Your task to perform on an android device: Go to accessibility settings Image 0: 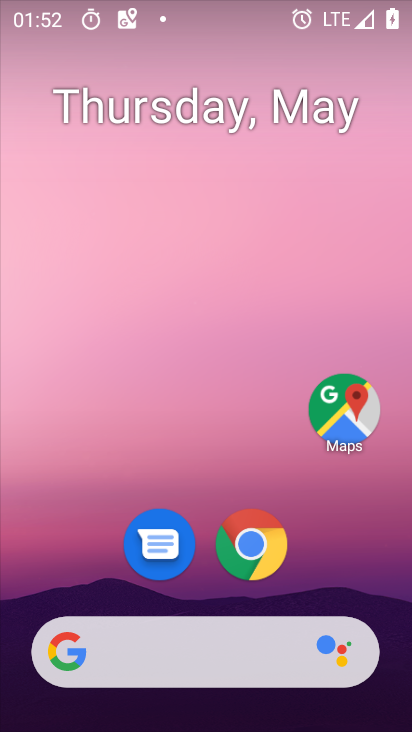
Step 0: drag from (374, 591) to (358, 185)
Your task to perform on an android device: Go to accessibility settings Image 1: 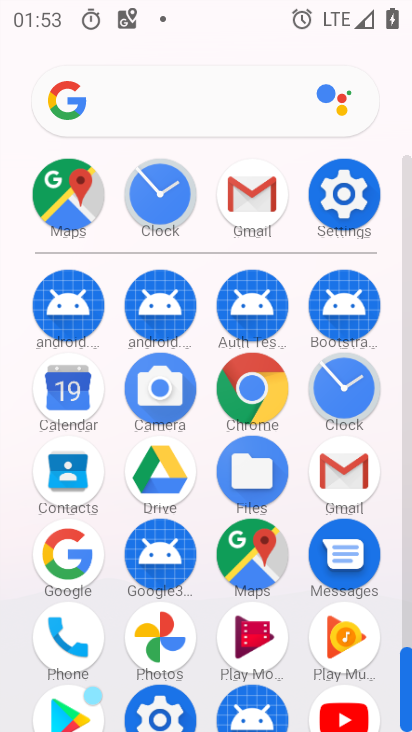
Step 1: click (338, 213)
Your task to perform on an android device: Go to accessibility settings Image 2: 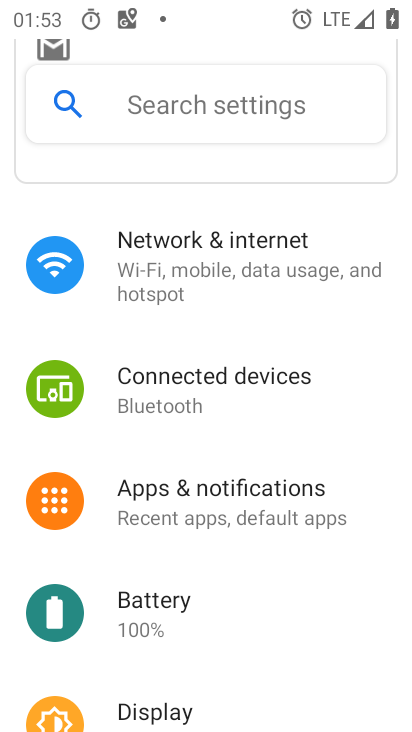
Step 2: drag from (349, 647) to (365, 401)
Your task to perform on an android device: Go to accessibility settings Image 3: 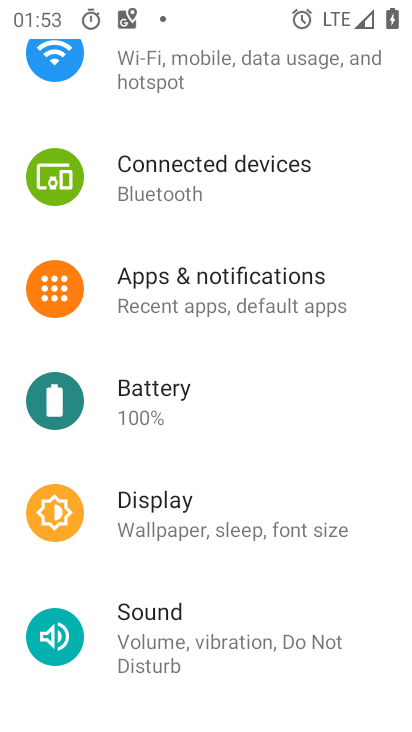
Step 3: drag from (345, 599) to (352, 396)
Your task to perform on an android device: Go to accessibility settings Image 4: 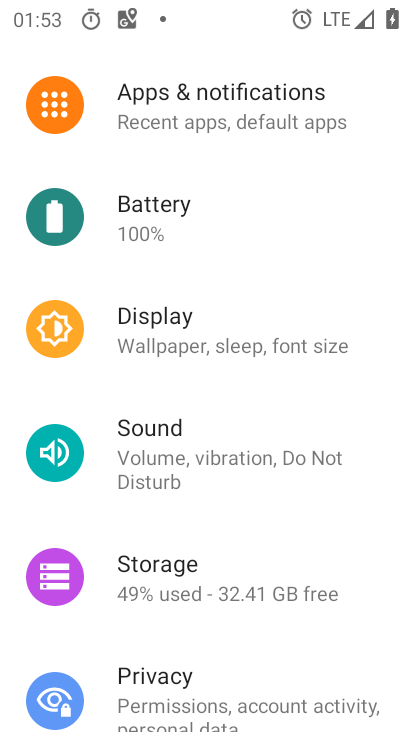
Step 4: drag from (351, 631) to (358, 516)
Your task to perform on an android device: Go to accessibility settings Image 5: 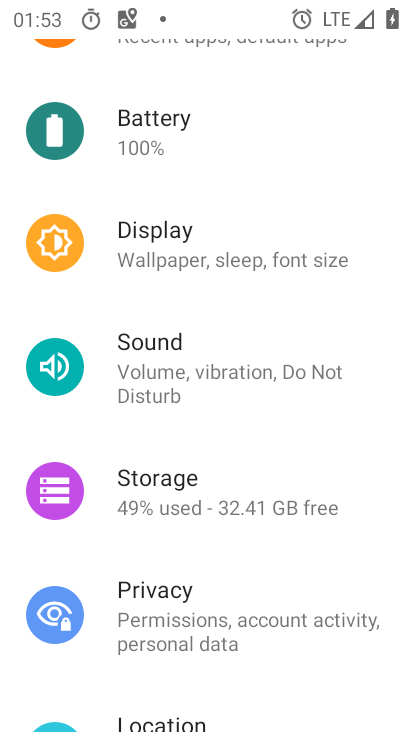
Step 5: drag from (367, 677) to (363, 527)
Your task to perform on an android device: Go to accessibility settings Image 6: 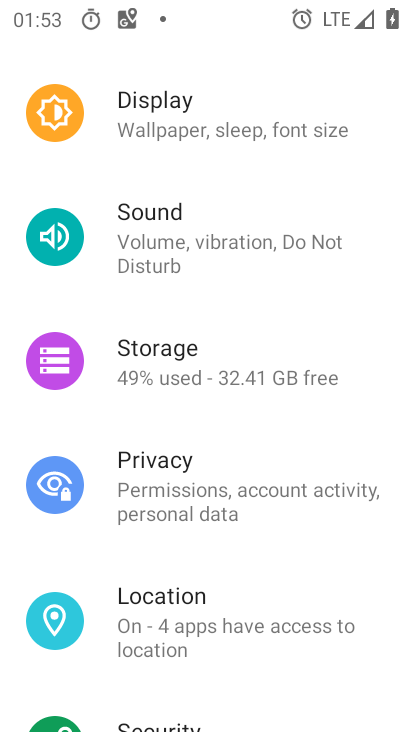
Step 6: drag from (333, 636) to (333, 482)
Your task to perform on an android device: Go to accessibility settings Image 7: 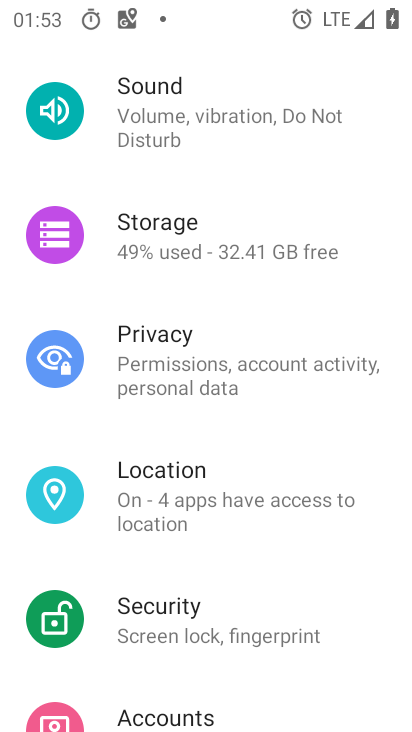
Step 7: drag from (349, 655) to (337, 529)
Your task to perform on an android device: Go to accessibility settings Image 8: 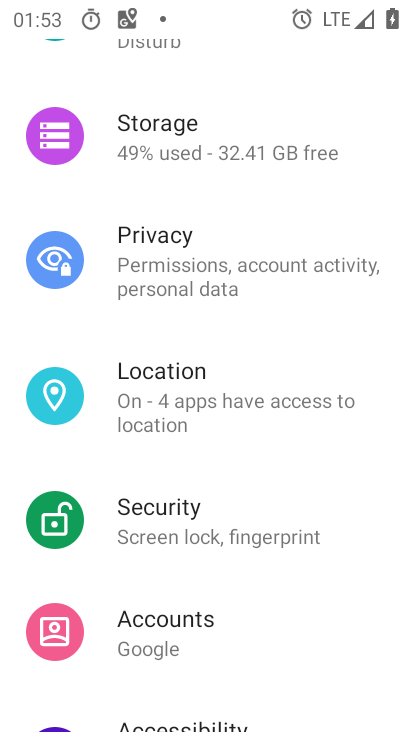
Step 8: drag from (336, 650) to (319, 545)
Your task to perform on an android device: Go to accessibility settings Image 9: 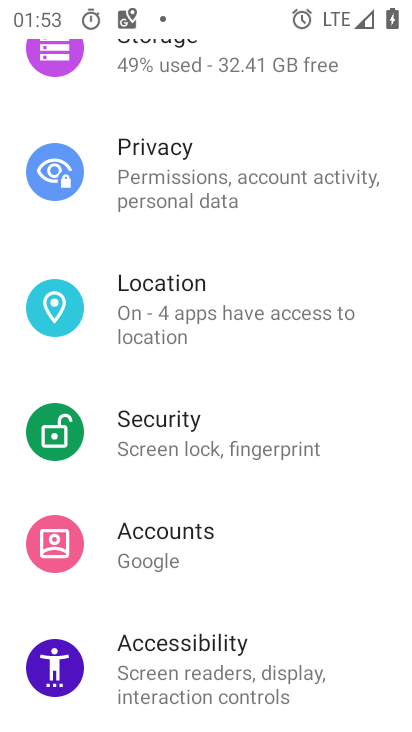
Step 9: drag from (335, 676) to (330, 579)
Your task to perform on an android device: Go to accessibility settings Image 10: 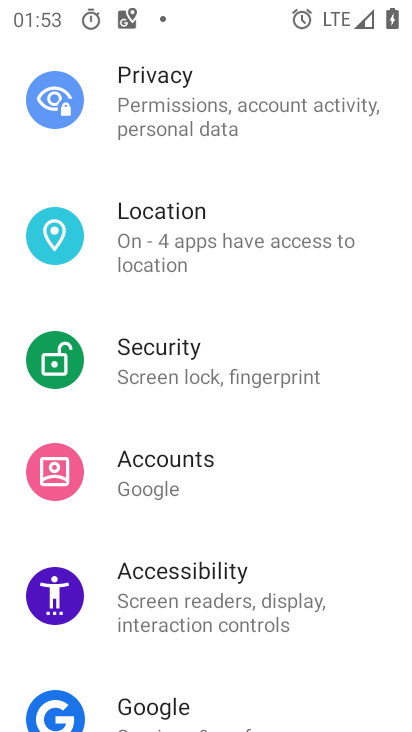
Step 10: drag from (339, 674) to (331, 552)
Your task to perform on an android device: Go to accessibility settings Image 11: 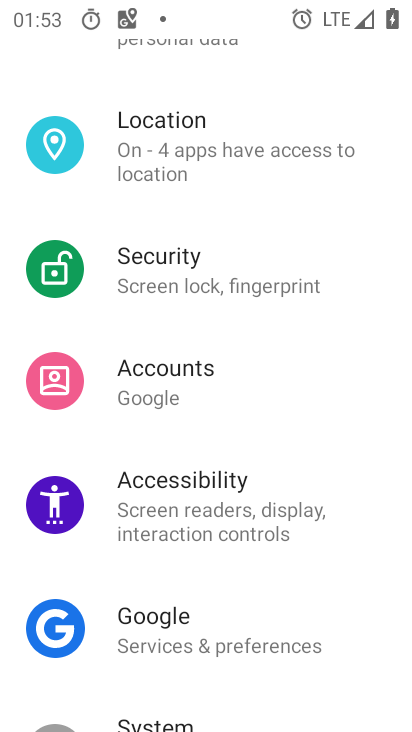
Step 11: drag from (340, 647) to (335, 491)
Your task to perform on an android device: Go to accessibility settings Image 12: 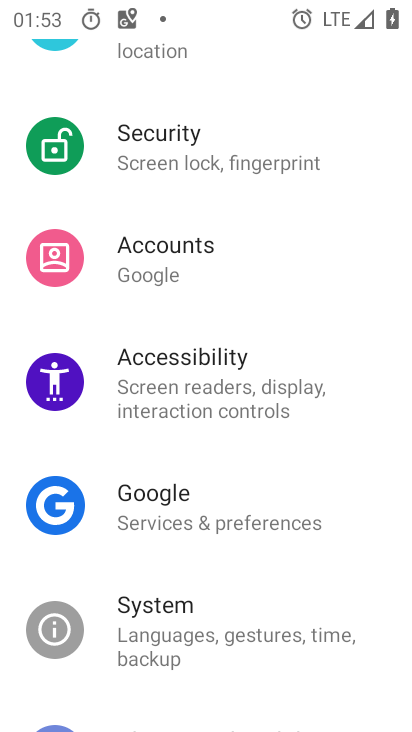
Step 12: drag from (337, 651) to (336, 466)
Your task to perform on an android device: Go to accessibility settings Image 13: 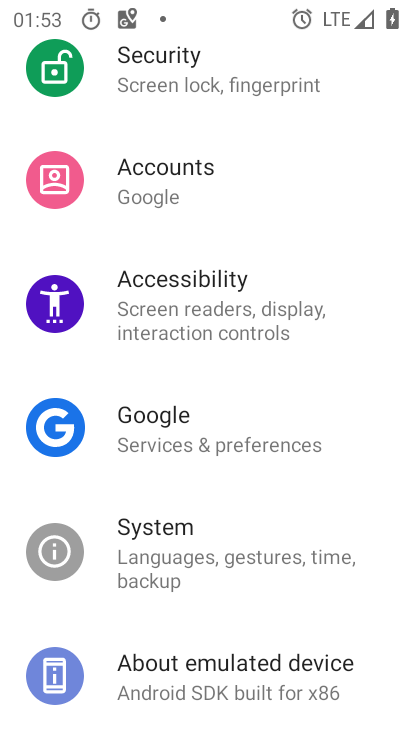
Step 13: drag from (366, 350) to (362, 496)
Your task to perform on an android device: Go to accessibility settings Image 14: 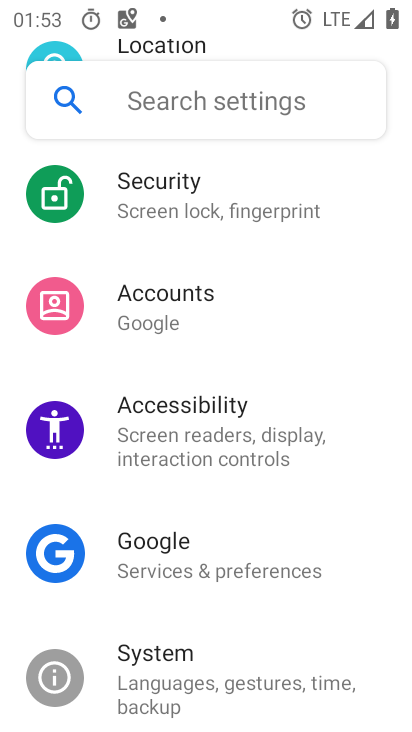
Step 14: click (232, 420)
Your task to perform on an android device: Go to accessibility settings Image 15: 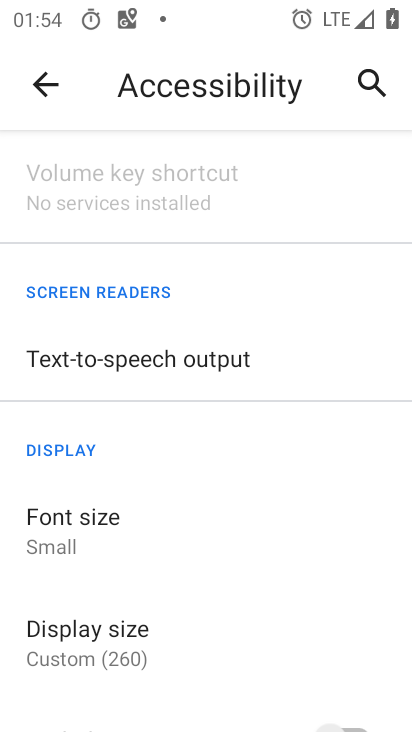
Step 15: task complete